Your task to perform on an android device: choose inbox layout in the gmail app Image 0: 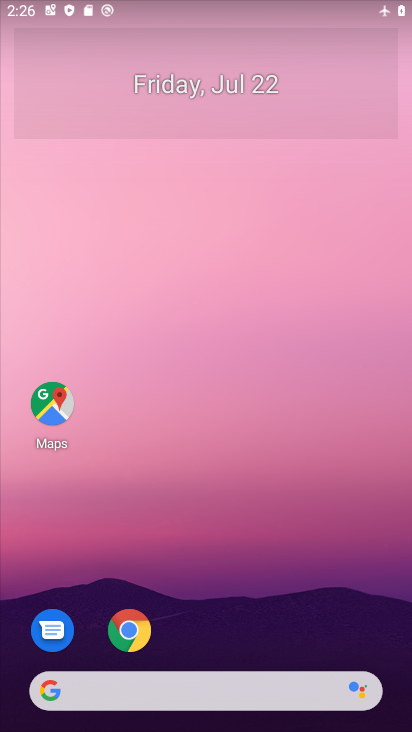
Step 0: drag from (264, 661) to (5, 355)
Your task to perform on an android device: choose inbox layout in the gmail app Image 1: 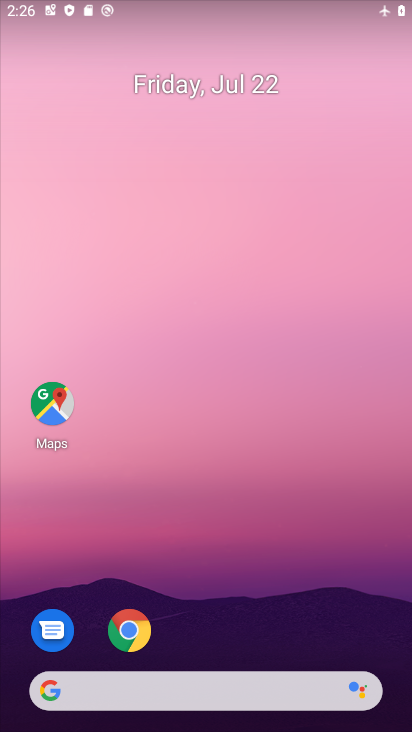
Step 1: drag from (224, 679) to (139, 51)
Your task to perform on an android device: choose inbox layout in the gmail app Image 2: 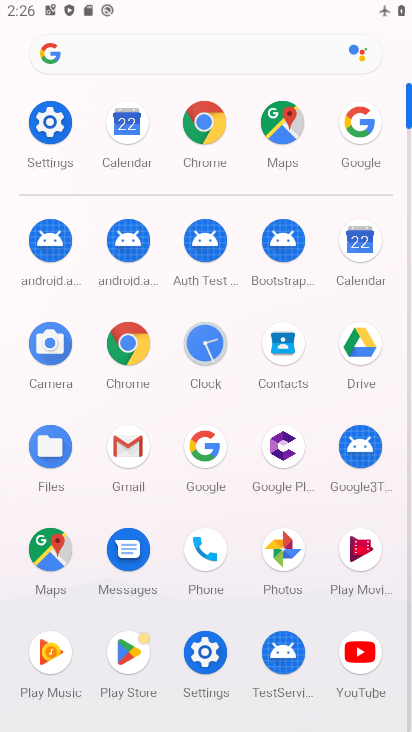
Step 2: click (144, 441)
Your task to perform on an android device: choose inbox layout in the gmail app Image 3: 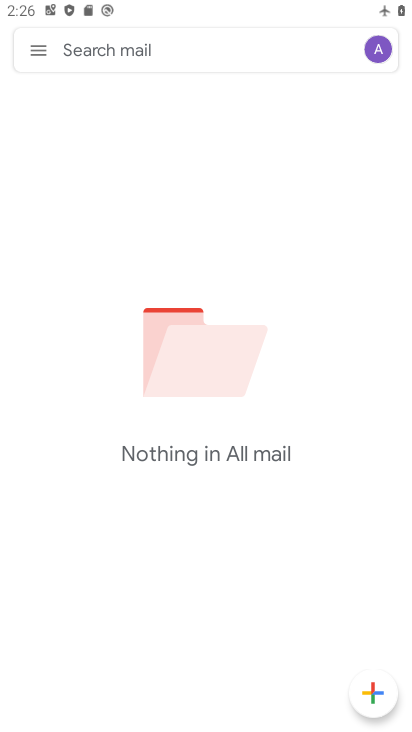
Step 3: click (34, 64)
Your task to perform on an android device: choose inbox layout in the gmail app Image 4: 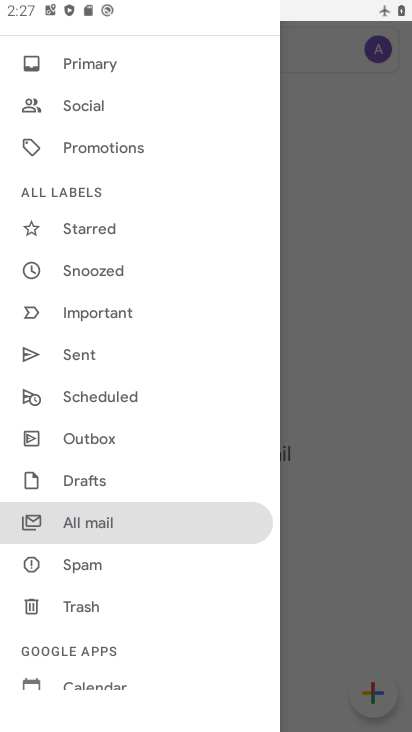
Step 4: drag from (128, 620) to (94, 119)
Your task to perform on an android device: choose inbox layout in the gmail app Image 5: 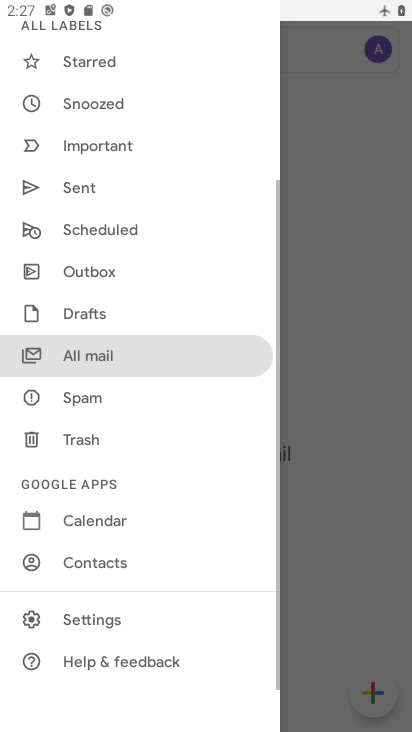
Step 5: click (103, 624)
Your task to perform on an android device: choose inbox layout in the gmail app Image 6: 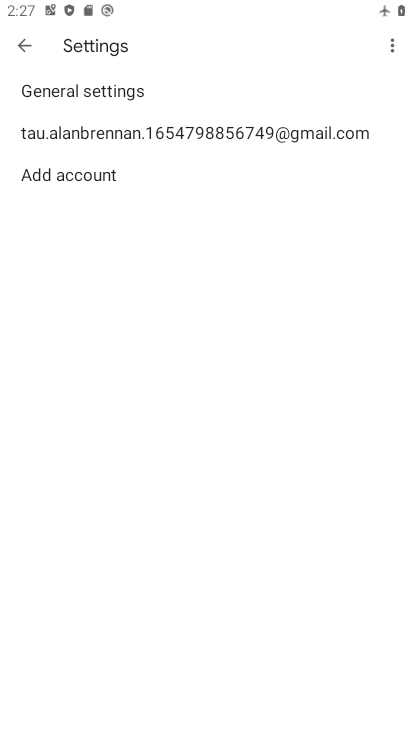
Step 6: click (72, 137)
Your task to perform on an android device: choose inbox layout in the gmail app Image 7: 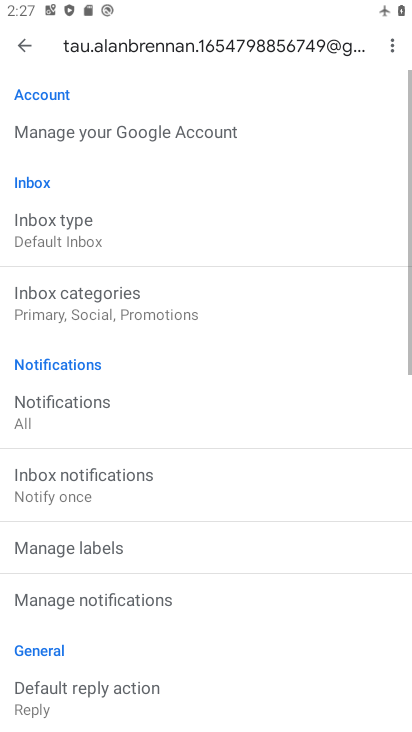
Step 7: click (67, 234)
Your task to perform on an android device: choose inbox layout in the gmail app Image 8: 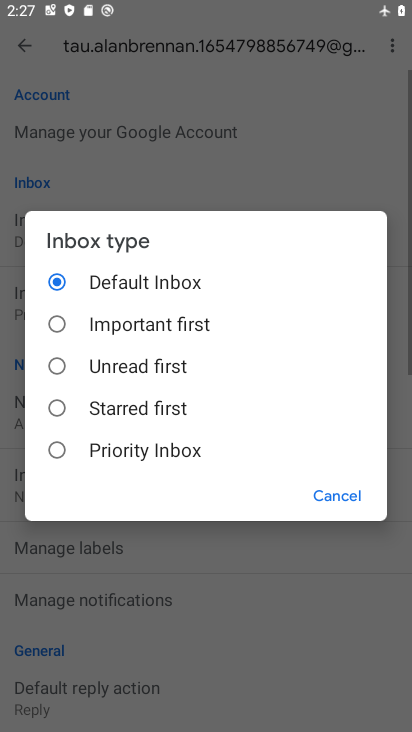
Step 8: click (134, 442)
Your task to perform on an android device: choose inbox layout in the gmail app Image 9: 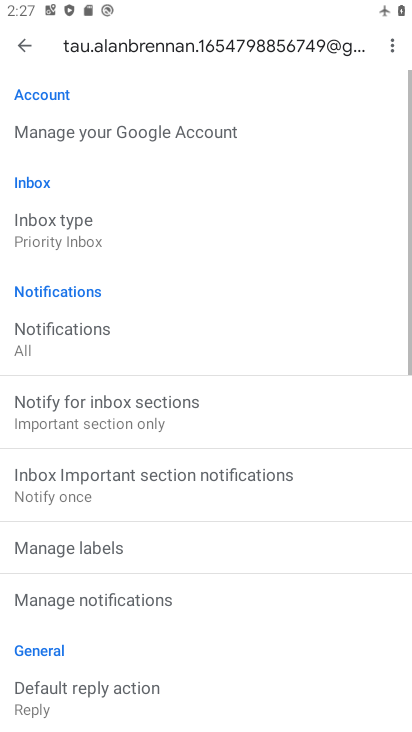
Step 9: click (23, 47)
Your task to perform on an android device: choose inbox layout in the gmail app Image 10: 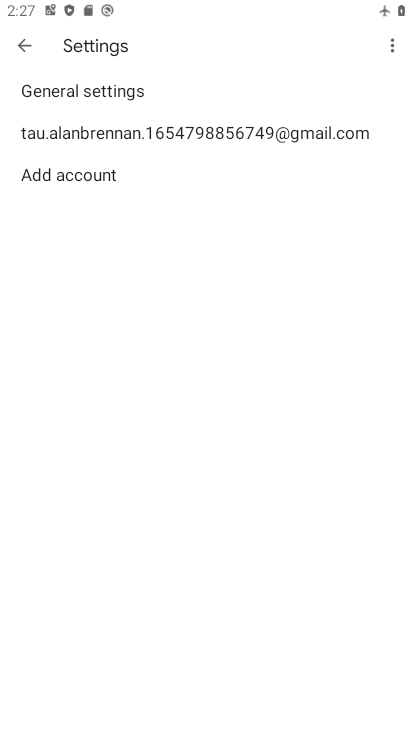
Step 10: click (25, 49)
Your task to perform on an android device: choose inbox layout in the gmail app Image 11: 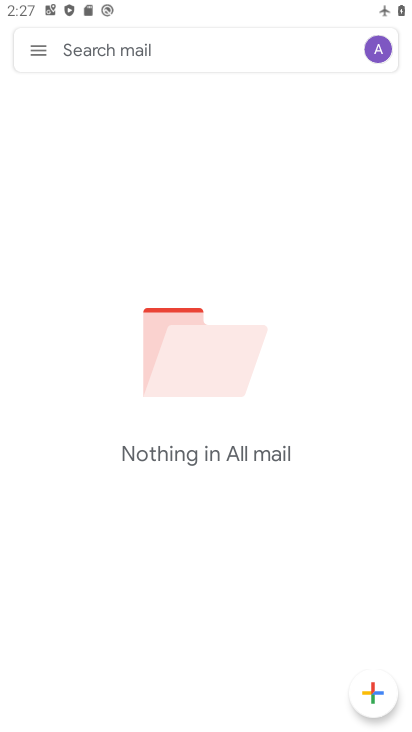
Step 11: click (31, 50)
Your task to perform on an android device: choose inbox layout in the gmail app Image 12: 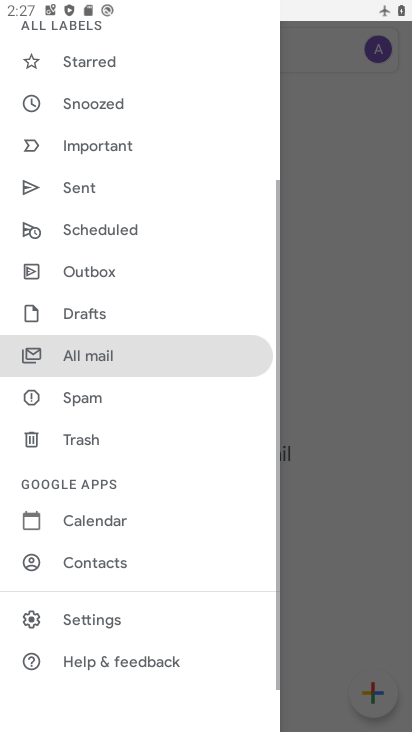
Step 12: drag from (91, 73) to (139, 532)
Your task to perform on an android device: choose inbox layout in the gmail app Image 13: 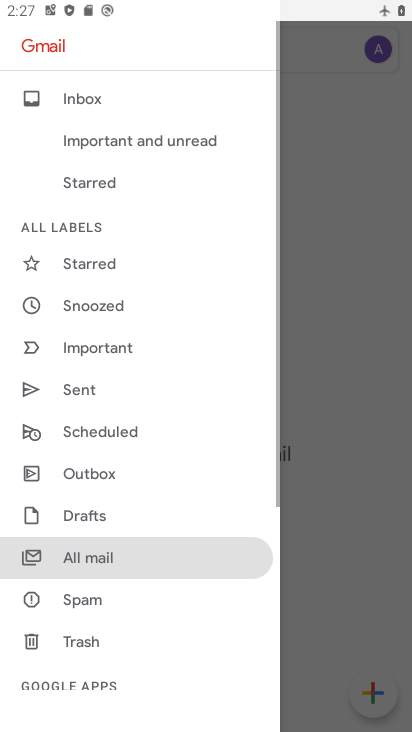
Step 13: click (71, 96)
Your task to perform on an android device: choose inbox layout in the gmail app Image 14: 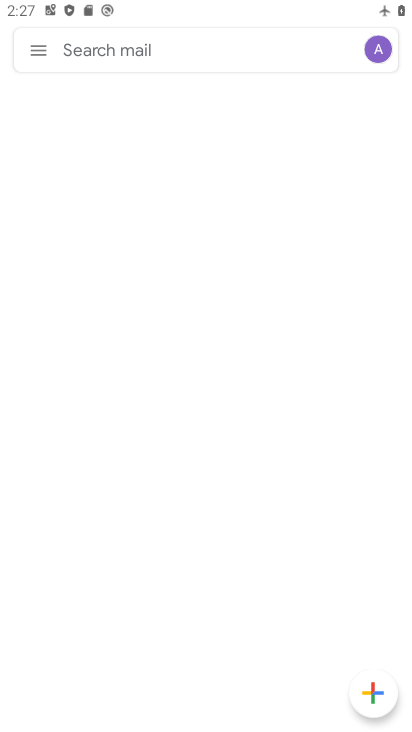
Step 14: task complete